Your task to perform on an android device: turn off data saver in the chrome app Image 0: 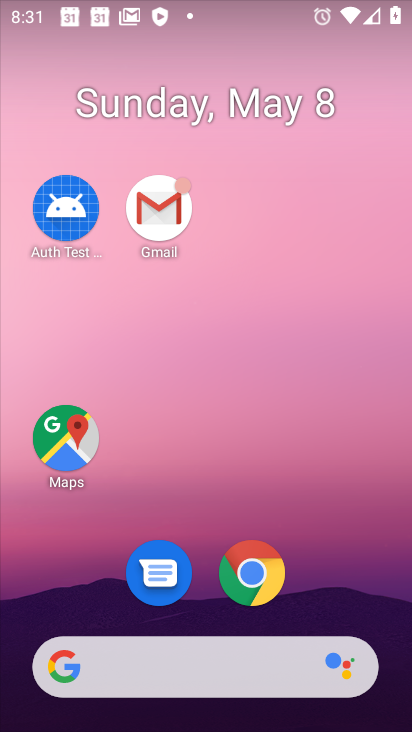
Step 0: drag from (350, 588) to (260, 94)
Your task to perform on an android device: turn off data saver in the chrome app Image 1: 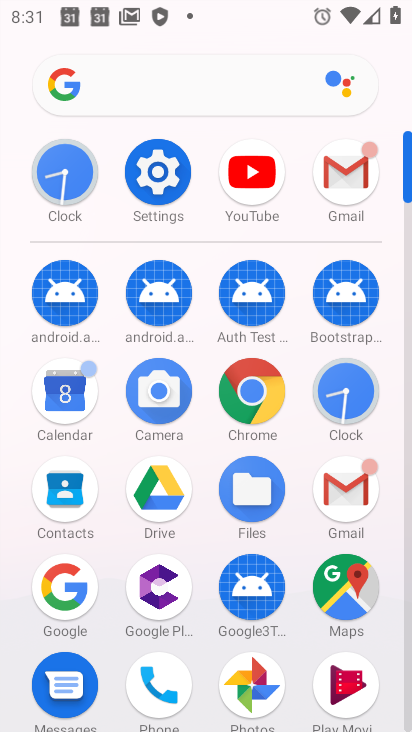
Step 1: click (247, 398)
Your task to perform on an android device: turn off data saver in the chrome app Image 2: 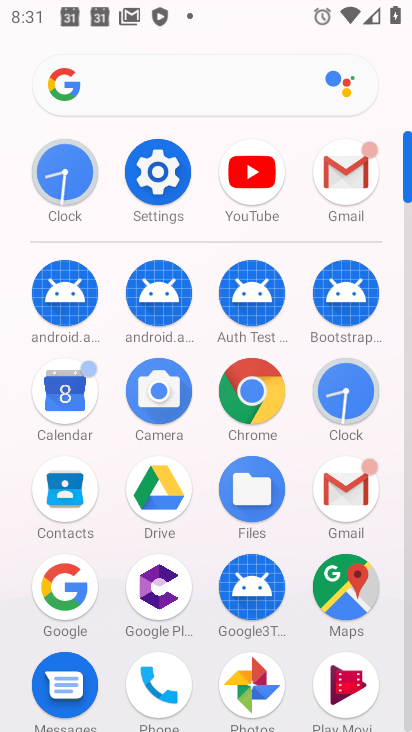
Step 2: click (247, 398)
Your task to perform on an android device: turn off data saver in the chrome app Image 3: 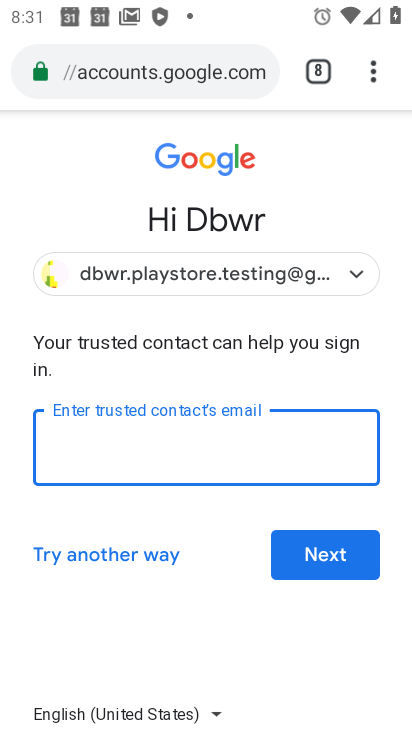
Step 3: drag from (372, 71) to (119, 579)
Your task to perform on an android device: turn off data saver in the chrome app Image 4: 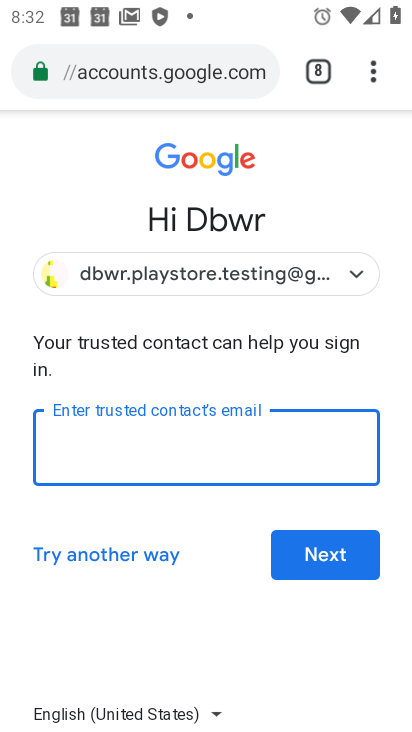
Step 4: click (82, 563)
Your task to perform on an android device: turn off data saver in the chrome app Image 5: 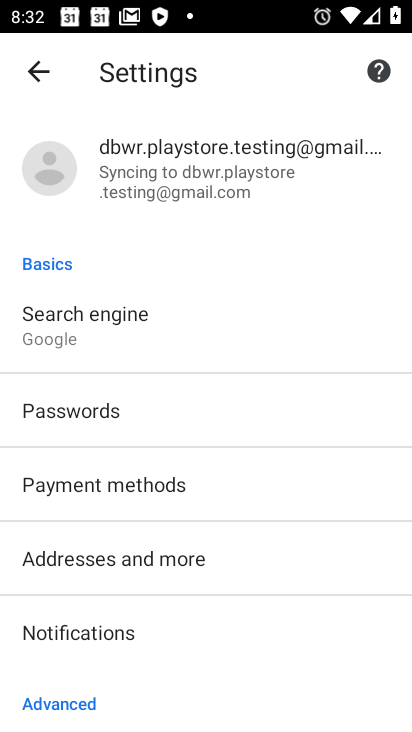
Step 5: drag from (193, 528) to (169, 146)
Your task to perform on an android device: turn off data saver in the chrome app Image 6: 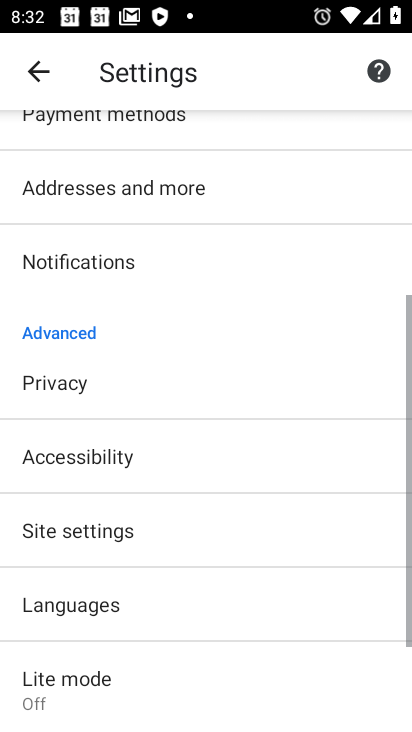
Step 6: drag from (267, 424) to (235, 202)
Your task to perform on an android device: turn off data saver in the chrome app Image 7: 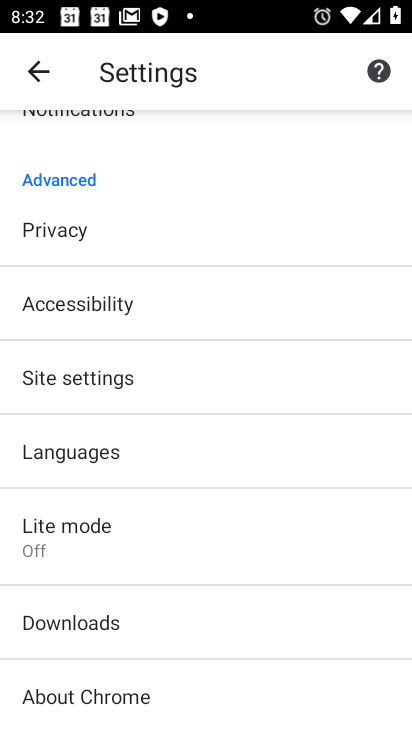
Step 7: click (45, 513)
Your task to perform on an android device: turn off data saver in the chrome app Image 8: 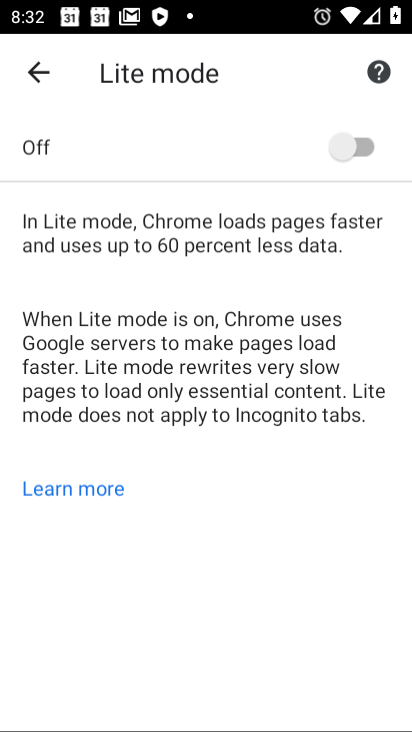
Step 8: click (56, 527)
Your task to perform on an android device: turn off data saver in the chrome app Image 9: 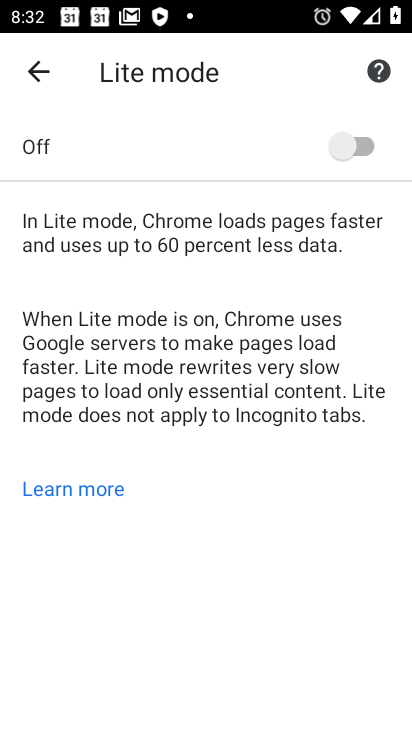
Step 9: click (56, 526)
Your task to perform on an android device: turn off data saver in the chrome app Image 10: 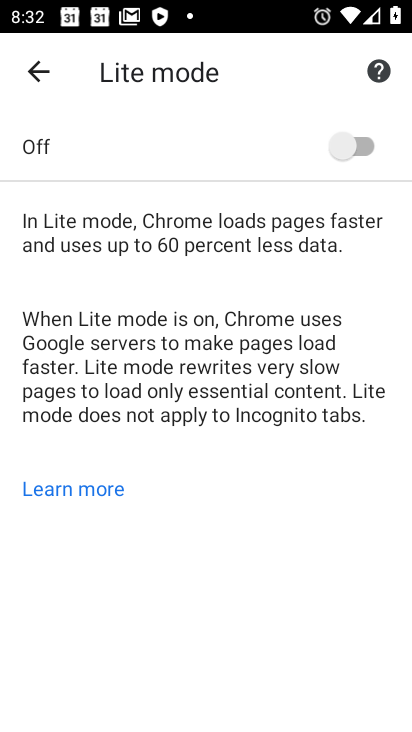
Step 10: task complete